Your task to perform on an android device: toggle location history Image 0: 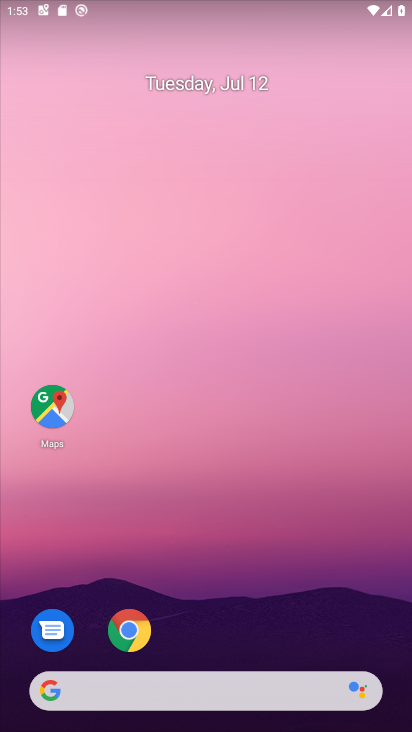
Step 0: drag from (231, 627) to (267, 173)
Your task to perform on an android device: toggle location history Image 1: 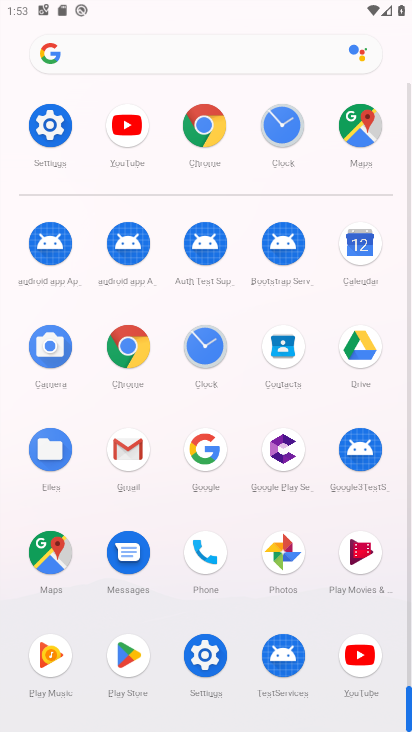
Step 1: click (43, 142)
Your task to perform on an android device: toggle location history Image 2: 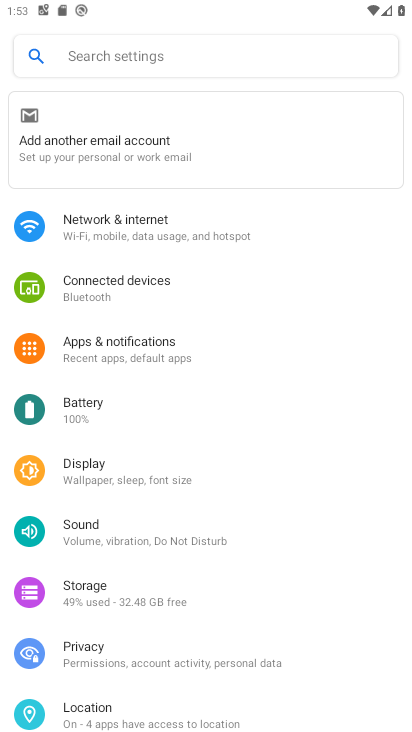
Step 2: drag from (201, 577) to (237, 399)
Your task to perform on an android device: toggle location history Image 3: 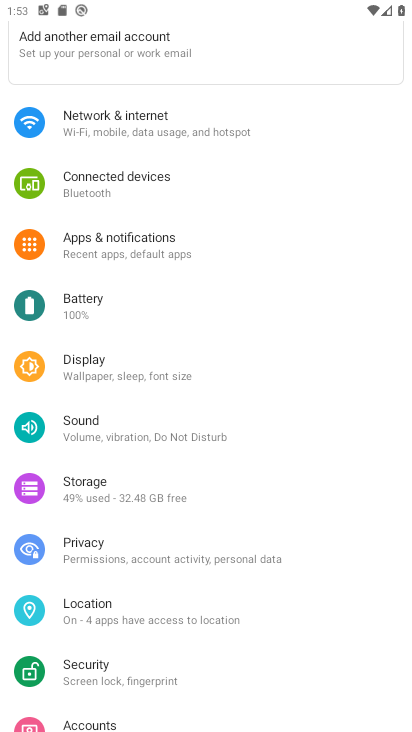
Step 3: click (147, 620)
Your task to perform on an android device: toggle location history Image 4: 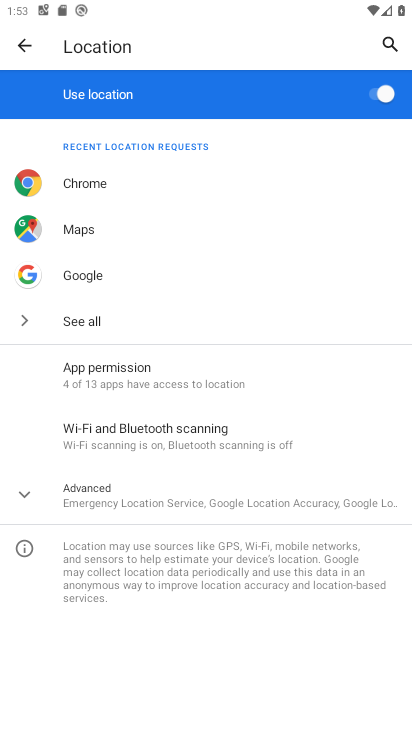
Step 4: click (166, 504)
Your task to perform on an android device: toggle location history Image 5: 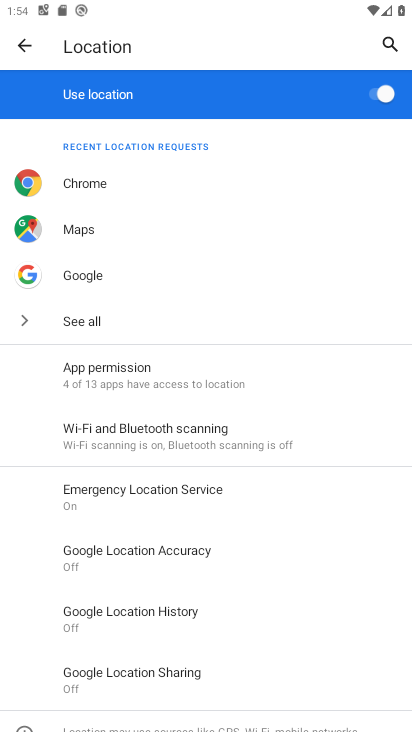
Step 5: click (162, 612)
Your task to perform on an android device: toggle location history Image 6: 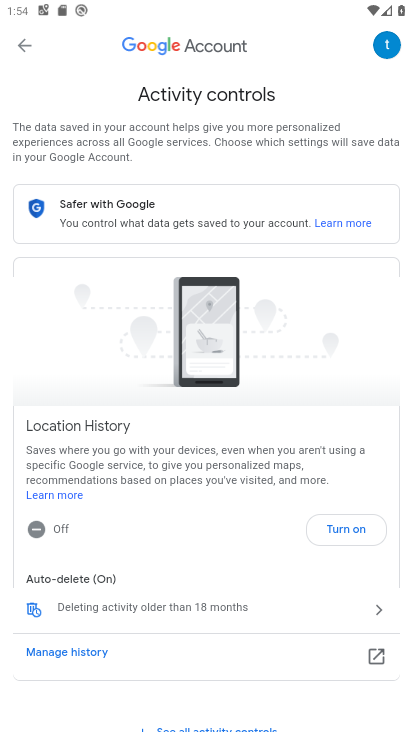
Step 6: click (334, 537)
Your task to perform on an android device: toggle location history Image 7: 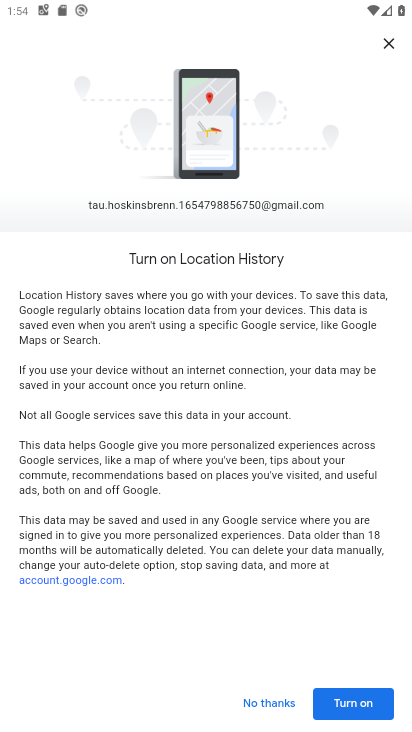
Step 7: click (351, 697)
Your task to perform on an android device: toggle location history Image 8: 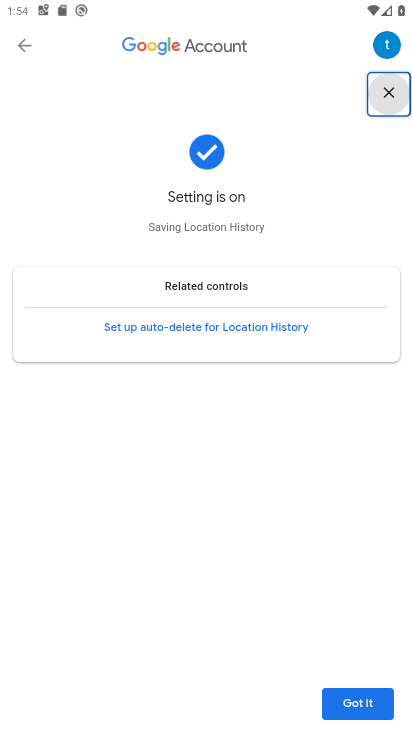
Step 8: click (353, 695)
Your task to perform on an android device: toggle location history Image 9: 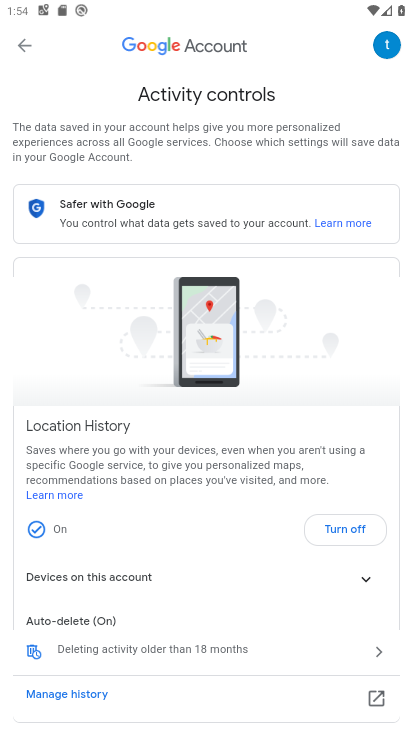
Step 9: task complete